Your task to perform on an android device: Go to Maps Image 0: 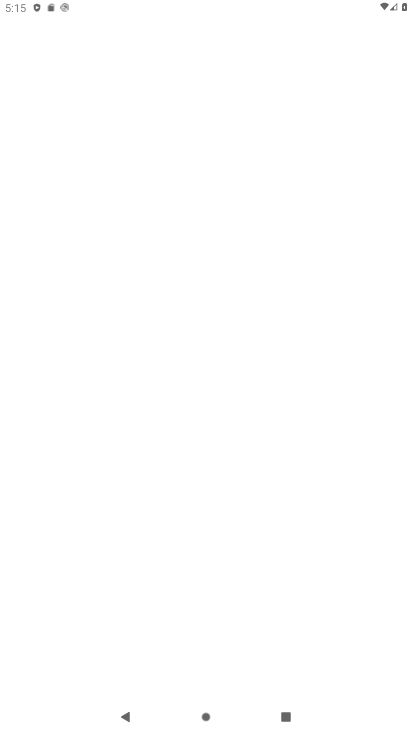
Step 0: press back button
Your task to perform on an android device: Go to Maps Image 1: 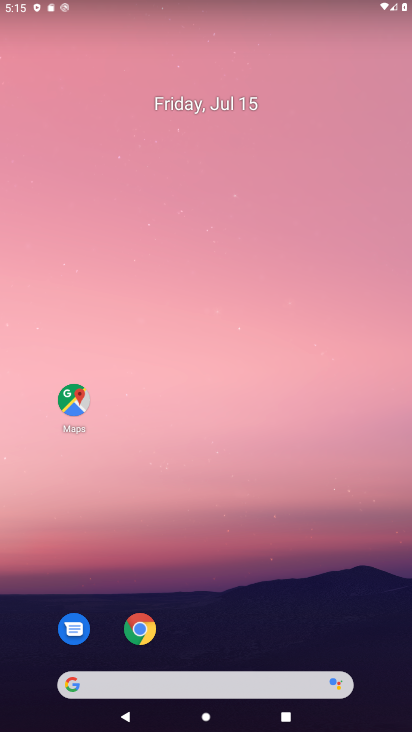
Step 1: click (73, 408)
Your task to perform on an android device: Go to Maps Image 2: 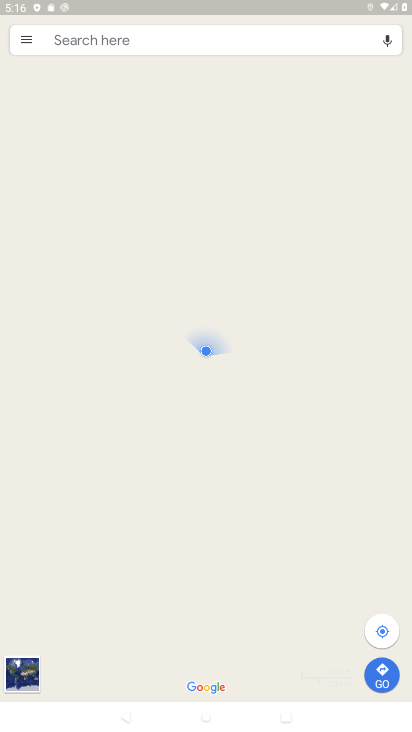
Step 2: task complete